Your task to perform on an android device: Open internet settings Image 0: 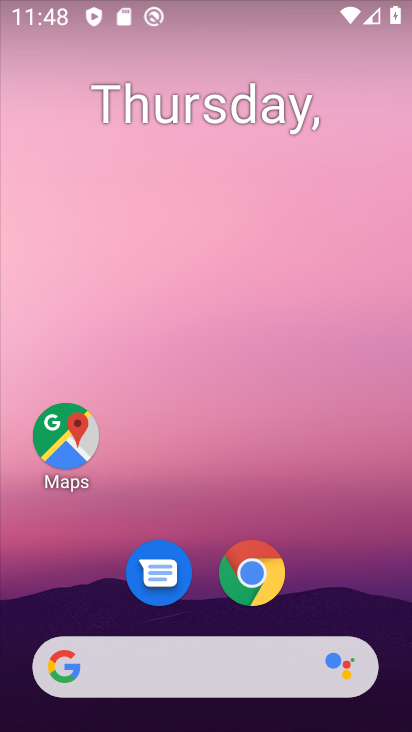
Step 0: drag from (343, 603) to (295, 134)
Your task to perform on an android device: Open internet settings Image 1: 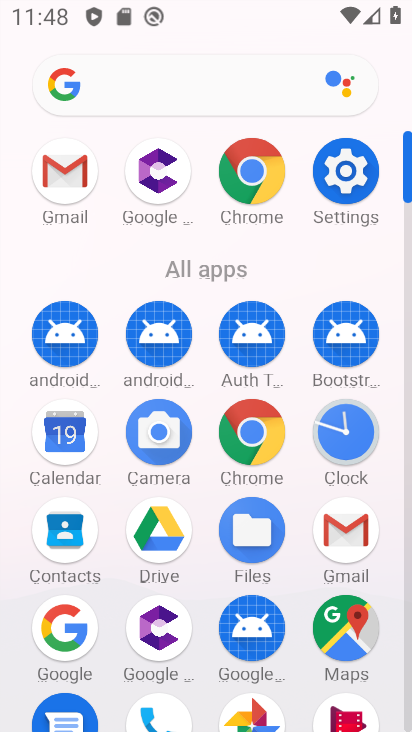
Step 1: click (357, 164)
Your task to perform on an android device: Open internet settings Image 2: 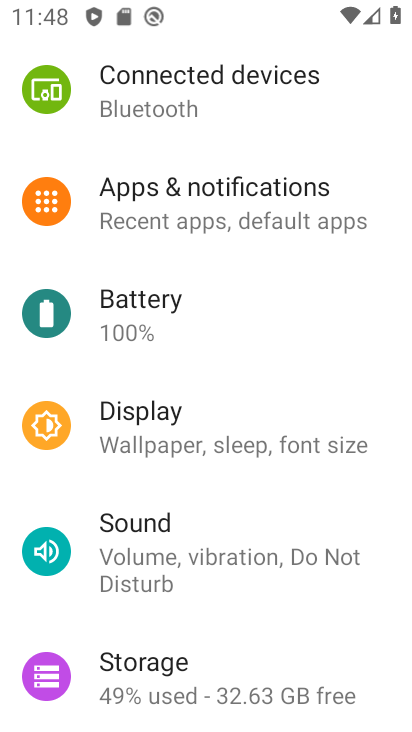
Step 2: drag from (217, 153) to (349, 575)
Your task to perform on an android device: Open internet settings Image 3: 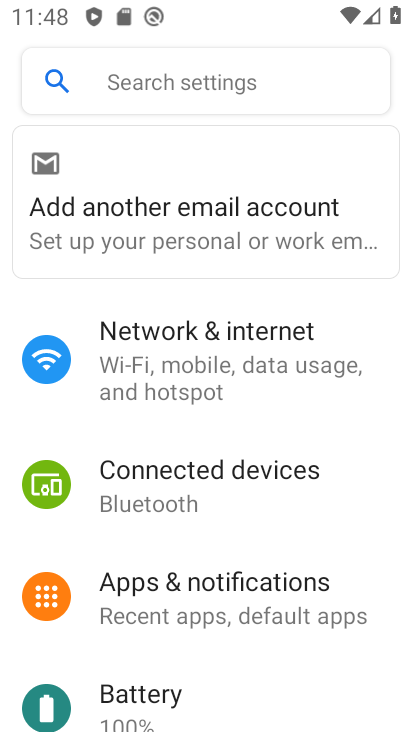
Step 3: click (209, 372)
Your task to perform on an android device: Open internet settings Image 4: 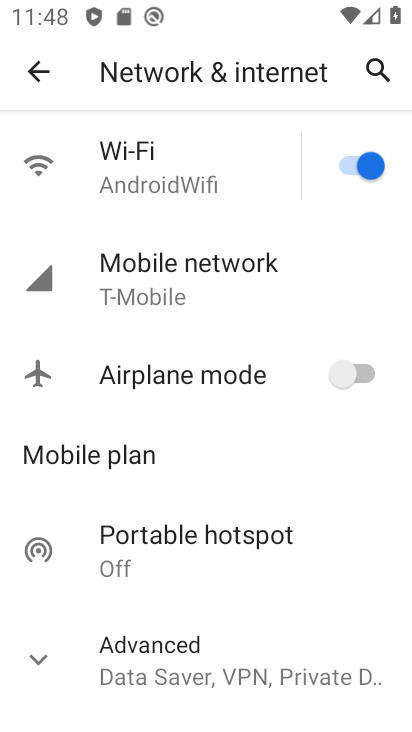
Step 4: click (169, 164)
Your task to perform on an android device: Open internet settings Image 5: 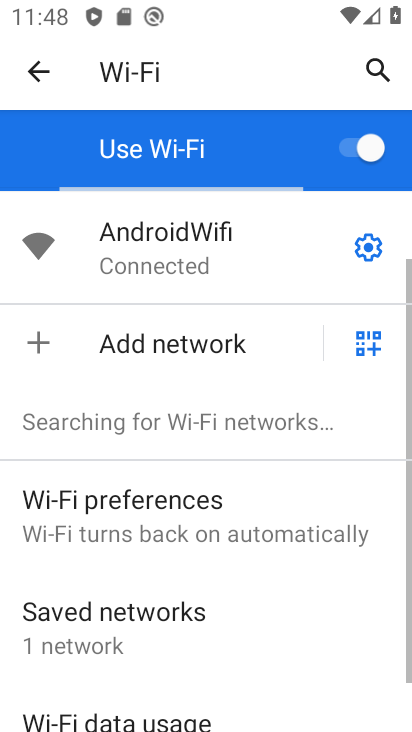
Step 5: click (349, 244)
Your task to perform on an android device: Open internet settings Image 6: 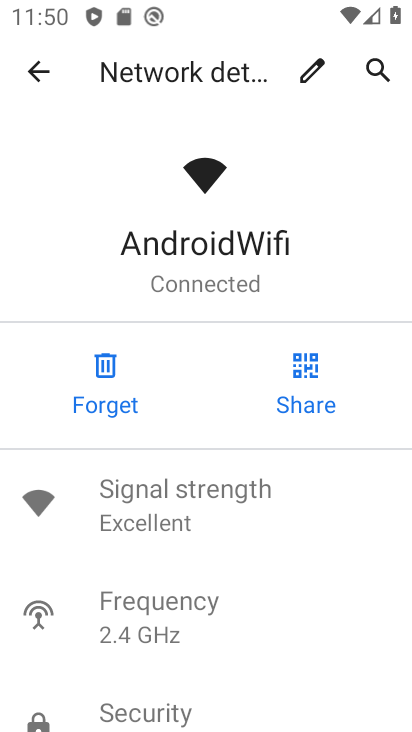
Step 6: task complete